Your task to perform on an android device: Do I have any events today? Image 0: 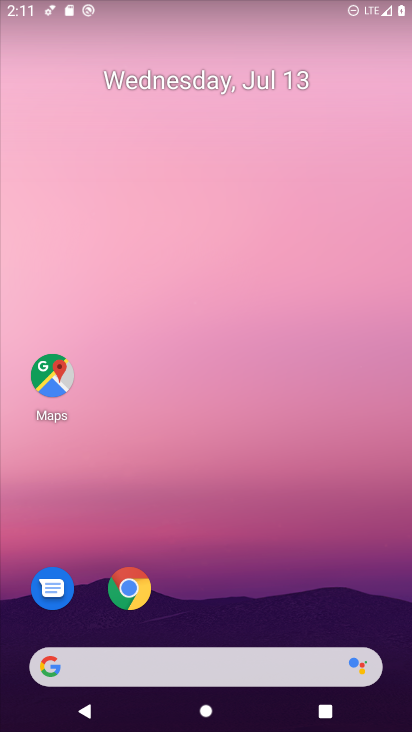
Step 0: drag from (205, 462) to (237, 133)
Your task to perform on an android device: Do I have any events today? Image 1: 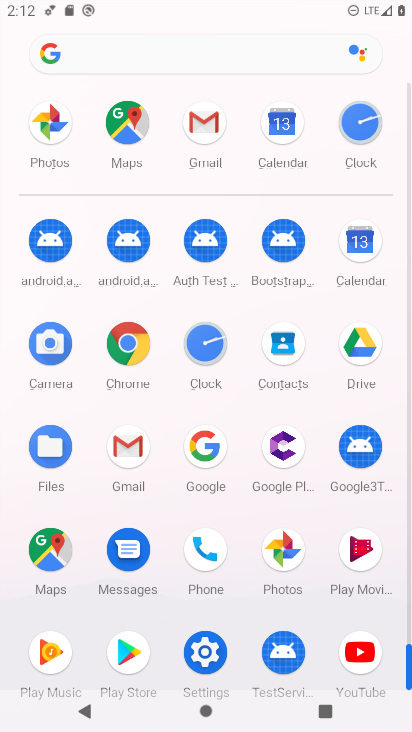
Step 1: click (355, 237)
Your task to perform on an android device: Do I have any events today? Image 2: 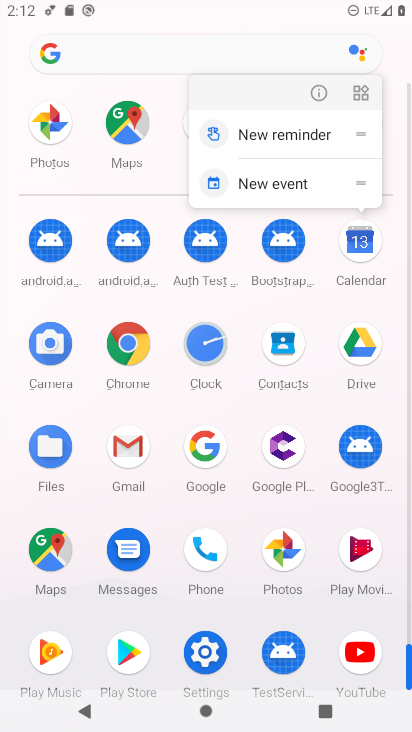
Step 2: click (318, 95)
Your task to perform on an android device: Do I have any events today? Image 3: 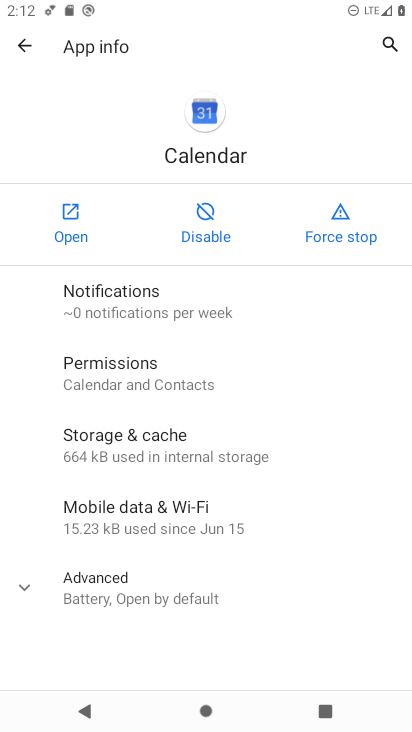
Step 3: click (61, 219)
Your task to perform on an android device: Do I have any events today? Image 4: 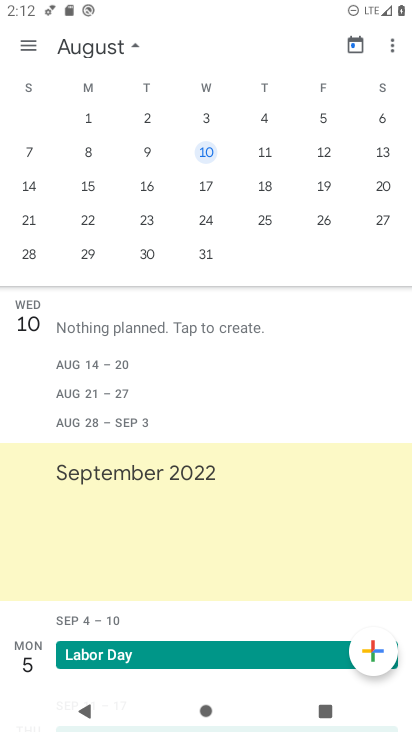
Step 4: drag from (47, 185) to (398, 188)
Your task to perform on an android device: Do I have any events today? Image 5: 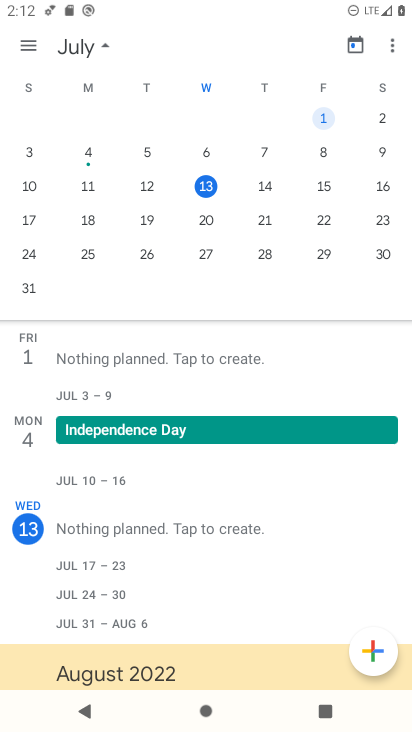
Step 5: drag from (208, 582) to (299, 357)
Your task to perform on an android device: Do I have any events today? Image 6: 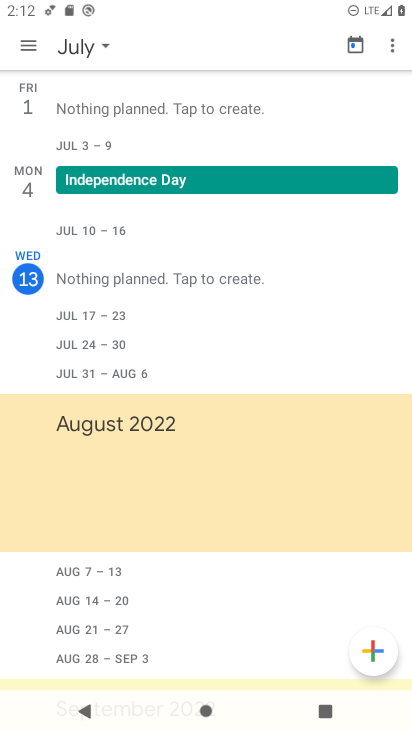
Step 6: drag from (224, 264) to (211, 618)
Your task to perform on an android device: Do I have any events today? Image 7: 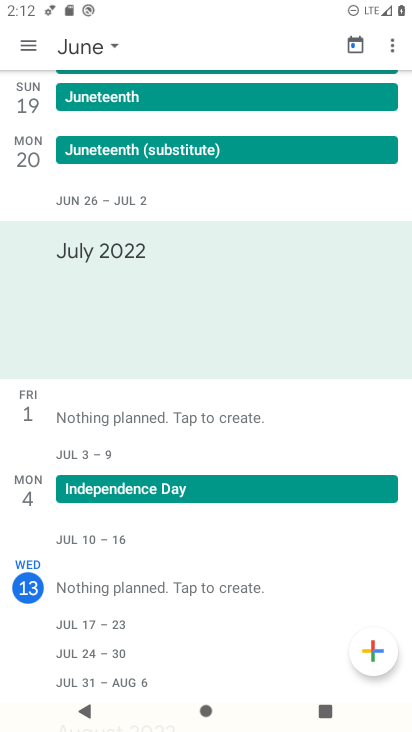
Step 7: click (86, 46)
Your task to perform on an android device: Do I have any events today? Image 8: 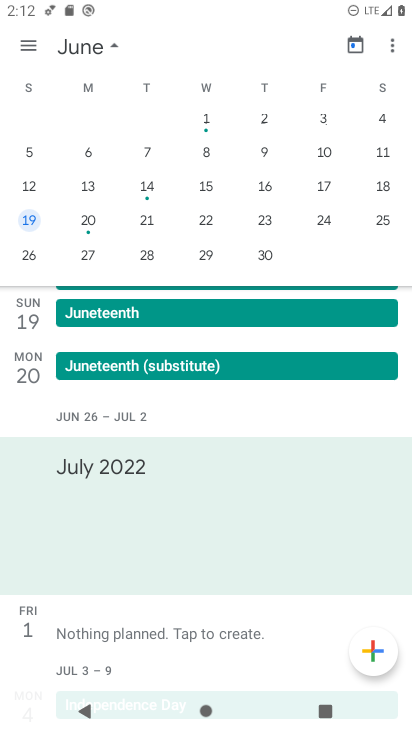
Step 8: click (359, 51)
Your task to perform on an android device: Do I have any events today? Image 9: 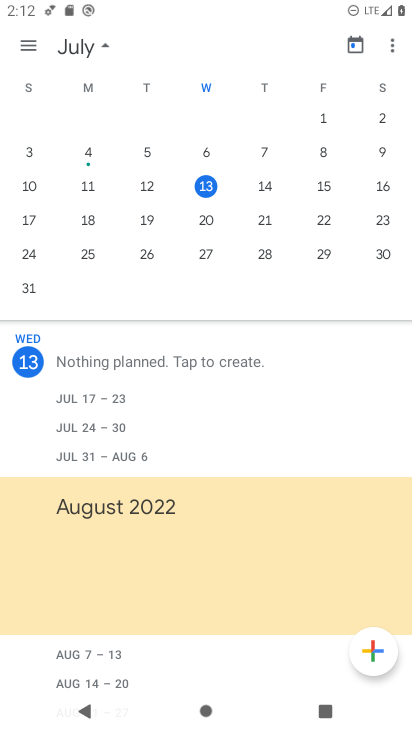
Step 9: click (208, 179)
Your task to perform on an android device: Do I have any events today? Image 10: 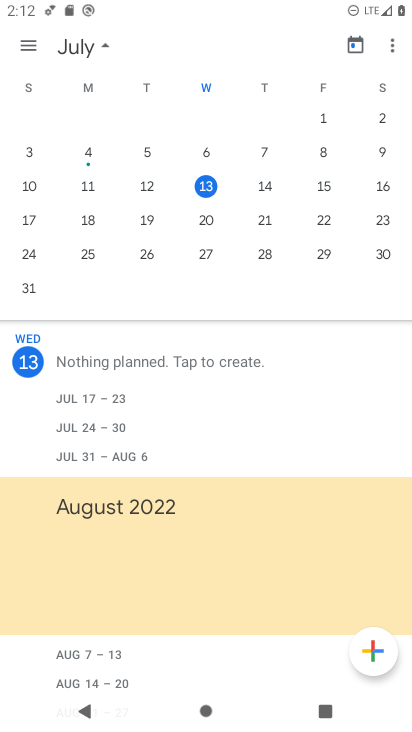
Step 10: task complete